Your task to perform on an android device: turn on notifications settings in the gmail app Image 0: 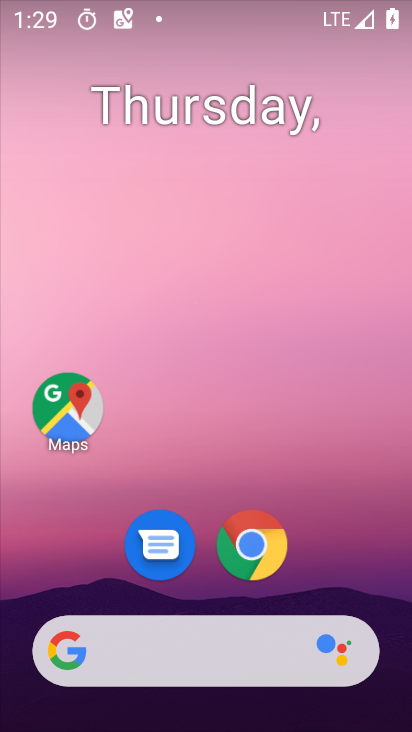
Step 0: drag from (313, 627) to (325, 58)
Your task to perform on an android device: turn on notifications settings in the gmail app Image 1: 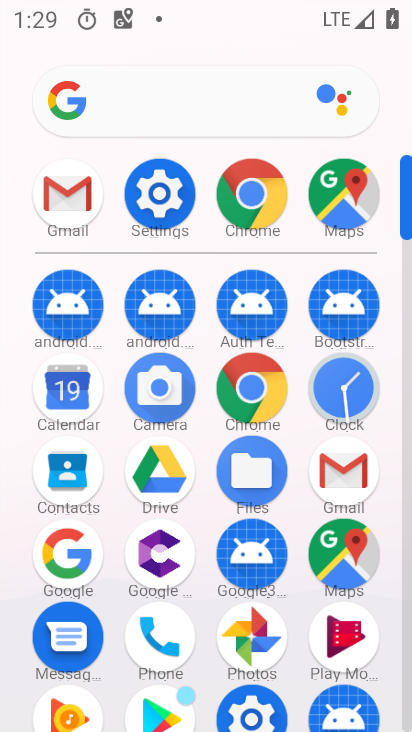
Step 1: click (334, 468)
Your task to perform on an android device: turn on notifications settings in the gmail app Image 2: 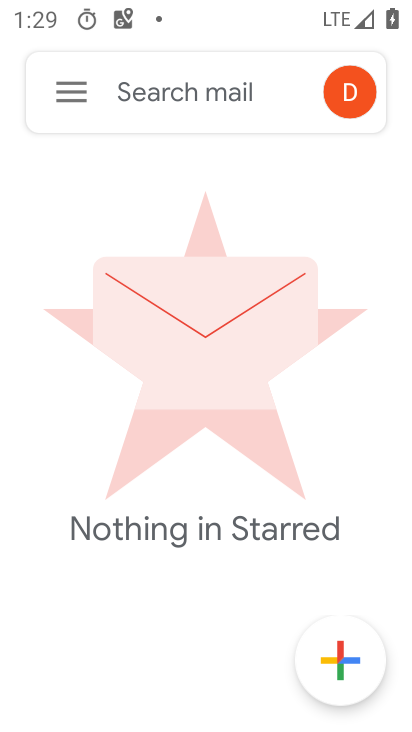
Step 2: click (70, 101)
Your task to perform on an android device: turn on notifications settings in the gmail app Image 3: 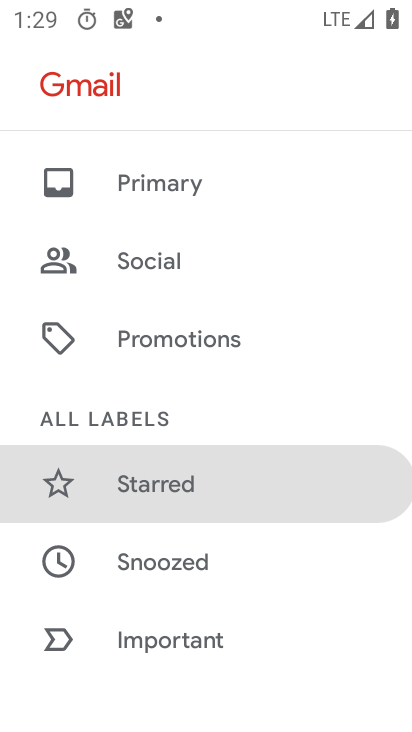
Step 3: drag from (213, 621) to (265, 145)
Your task to perform on an android device: turn on notifications settings in the gmail app Image 4: 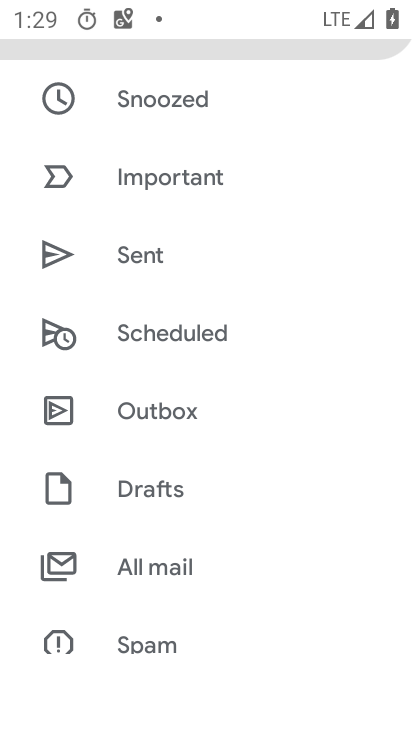
Step 4: drag from (273, 587) to (274, 165)
Your task to perform on an android device: turn on notifications settings in the gmail app Image 5: 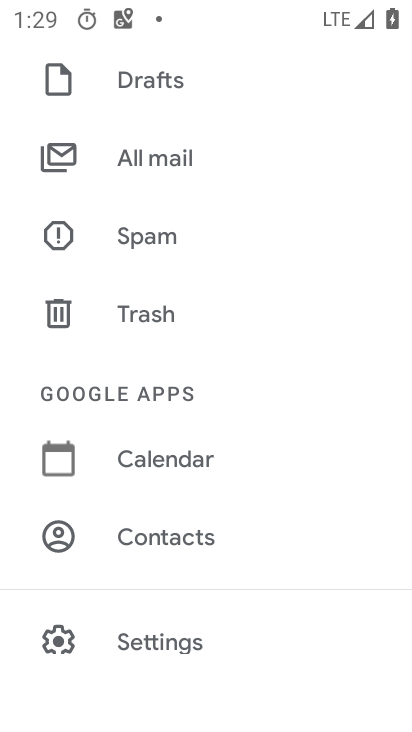
Step 5: click (181, 647)
Your task to perform on an android device: turn on notifications settings in the gmail app Image 6: 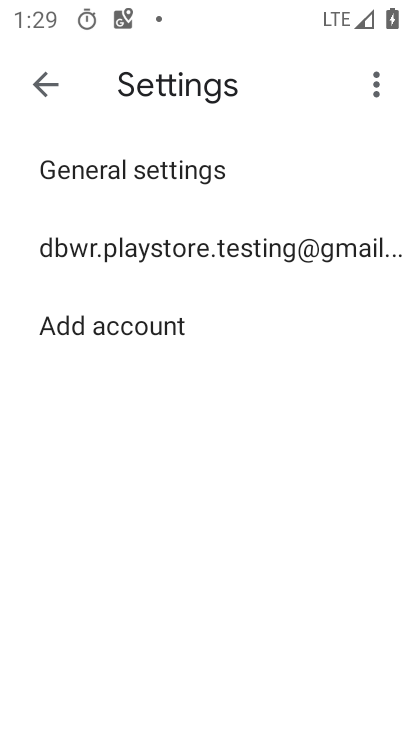
Step 6: click (248, 249)
Your task to perform on an android device: turn on notifications settings in the gmail app Image 7: 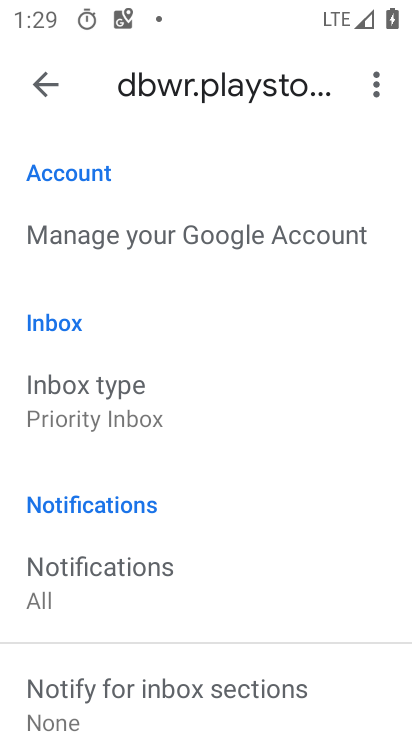
Step 7: drag from (196, 675) to (195, 159)
Your task to perform on an android device: turn on notifications settings in the gmail app Image 8: 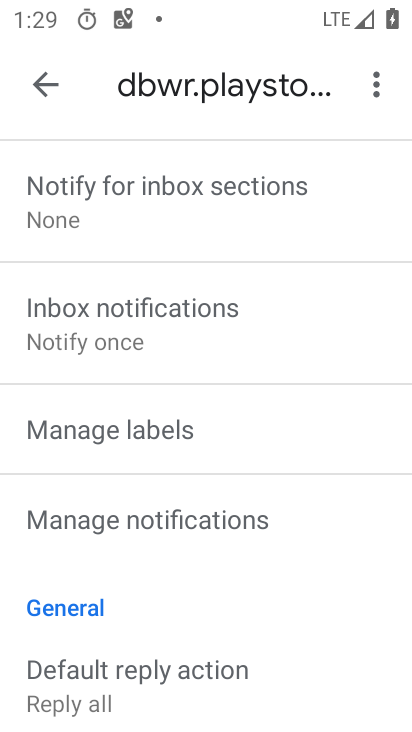
Step 8: click (175, 524)
Your task to perform on an android device: turn on notifications settings in the gmail app Image 9: 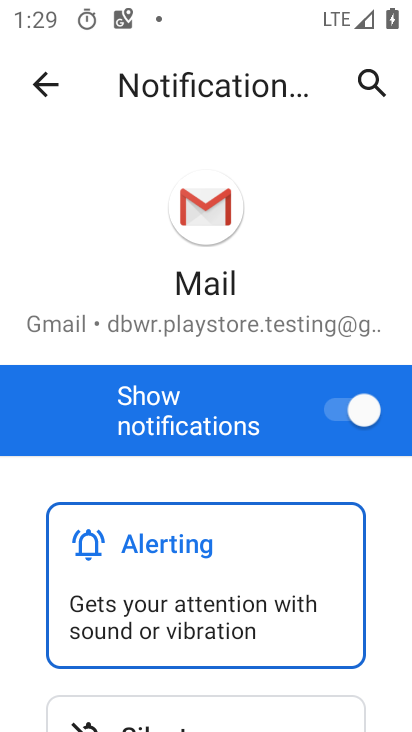
Step 9: task complete